Your task to perform on an android device: Open Youtube and go to "Your channel" Image 0: 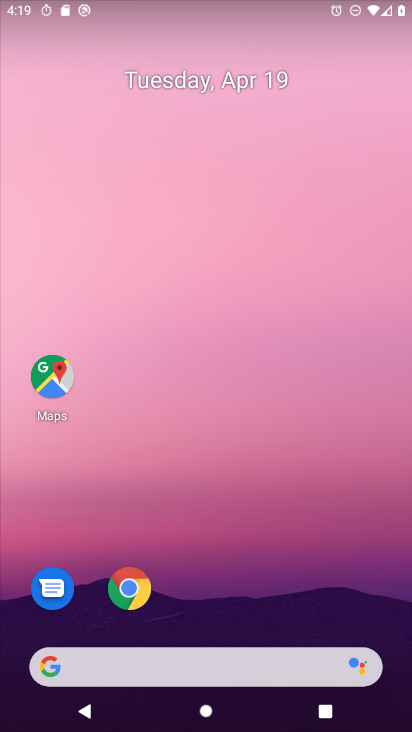
Step 0: drag from (247, 506) to (263, 130)
Your task to perform on an android device: Open Youtube and go to "Your channel" Image 1: 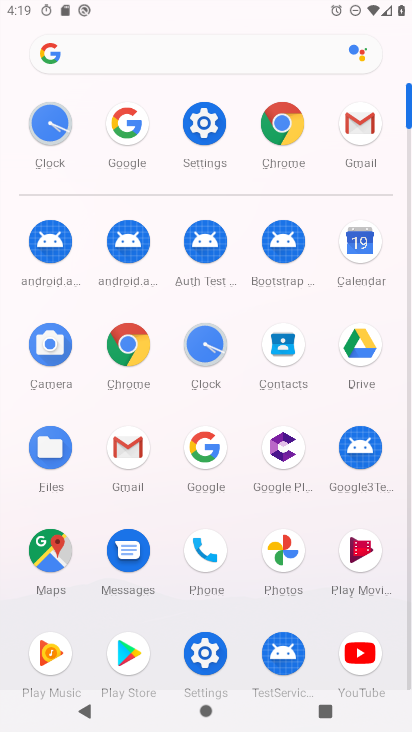
Step 1: click (357, 659)
Your task to perform on an android device: Open Youtube and go to "Your channel" Image 2: 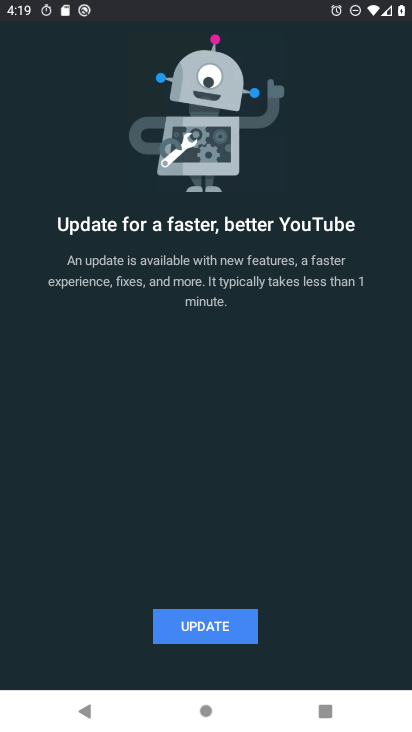
Step 2: click (227, 635)
Your task to perform on an android device: Open Youtube and go to "Your channel" Image 3: 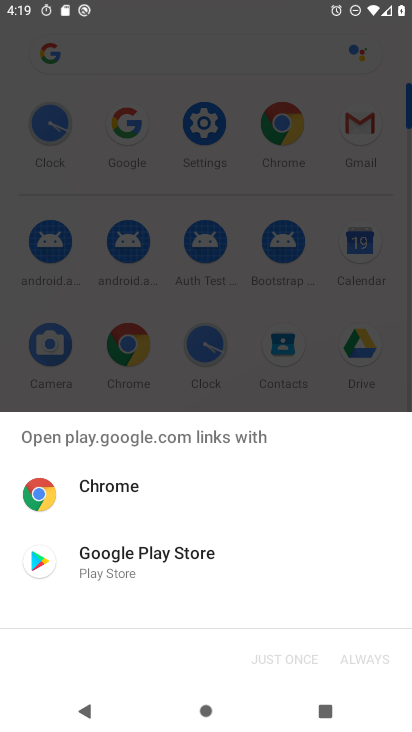
Step 3: click (173, 562)
Your task to perform on an android device: Open Youtube and go to "Your channel" Image 4: 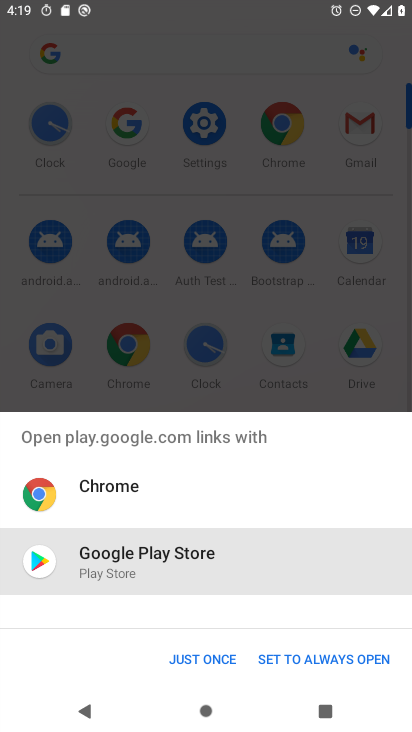
Step 4: click (215, 652)
Your task to perform on an android device: Open Youtube and go to "Your channel" Image 5: 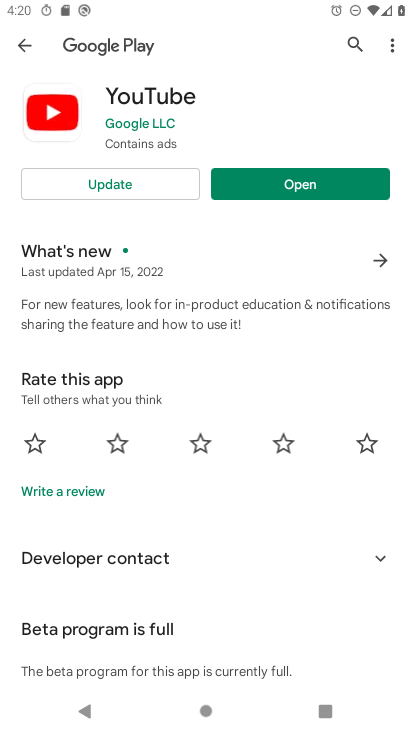
Step 5: click (157, 175)
Your task to perform on an android device: Open Youtube and go to "Your channel" Image 6: 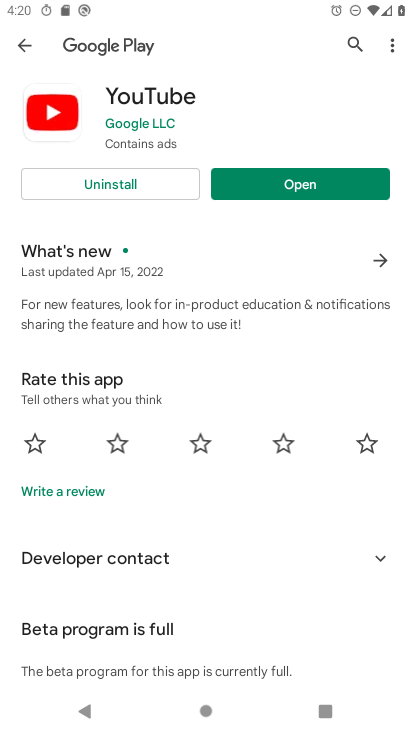
Step 6: click (283, 181)
Your task to perform on an android device: Open Youtube and go to "Your channel" Image 7: 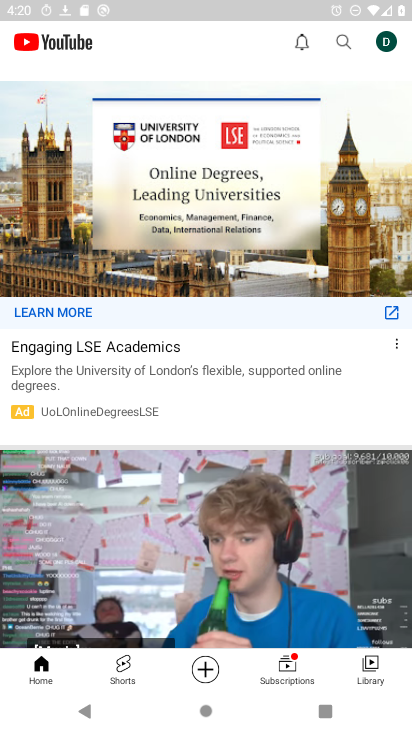
Step 7: click (367, 674)
Your task to perform on an android device: Open Youtube and go to "Your channel" Image 8: 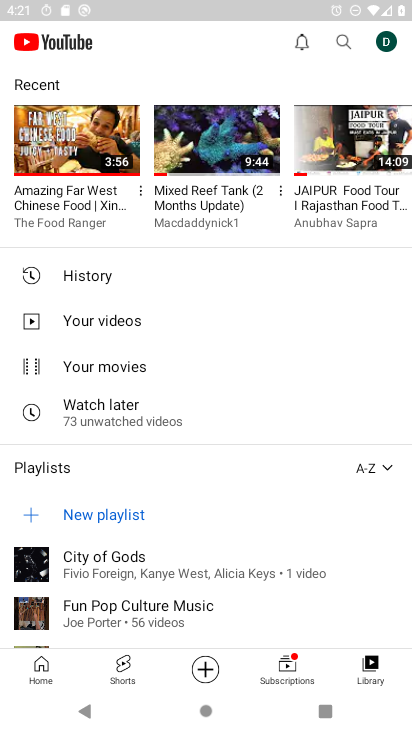
Step 8: click (384, 40)
Your task to perform on an android device: Open Youtube and go to "Your channel" Image 9: 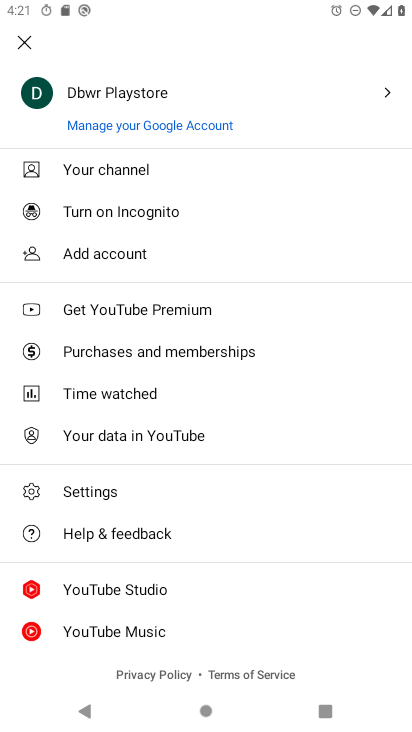
Step 9: click (130, 167)
Your task to perform on an android device: Open Youtube and go to "Your channel" Image 10: 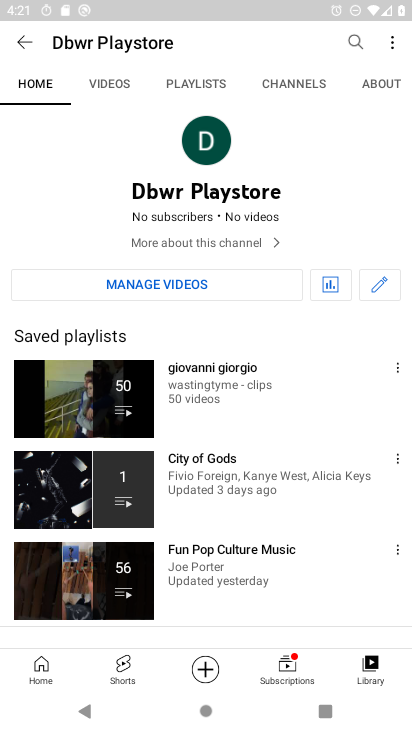
Step 10: task complete